Your task to perform on an android device: turn on the 24-hour format for clock Image 0: 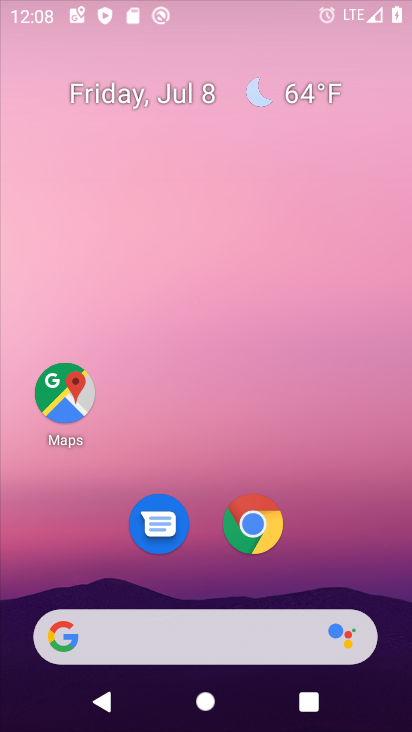
Step 0: drag from (330, 536) to (324, 23)
Your task to perform on an android device: turn on the 24-hour format for clock Image 1: 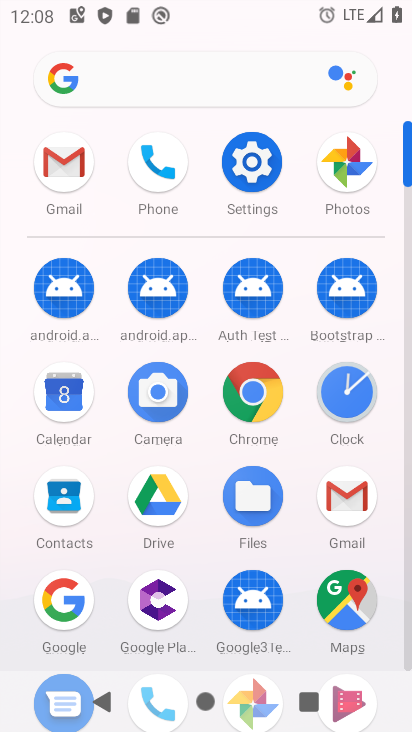
Step 1: click (330, 386)
Your task to perform on an android device: turn on the 24-hour format for clock Image 2: 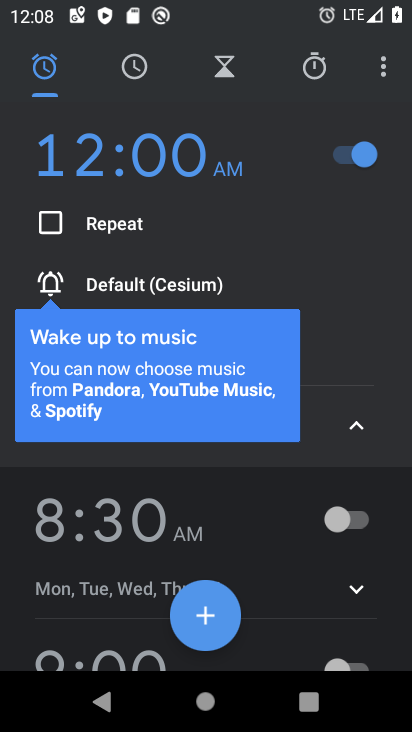
Step 2: click (381, 74)
Your task to perform on an android device: turn on the 24-hour format for clock Image 3: 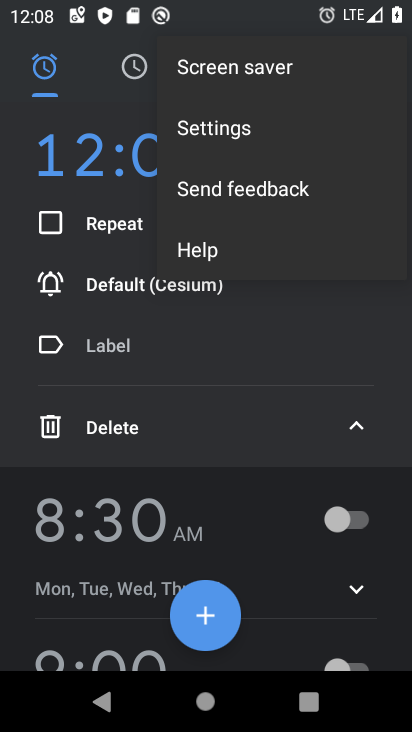
Step 3: click (243, 128)
Your task to perform on an android device: turn on the 24-hour format for clock Image 4: 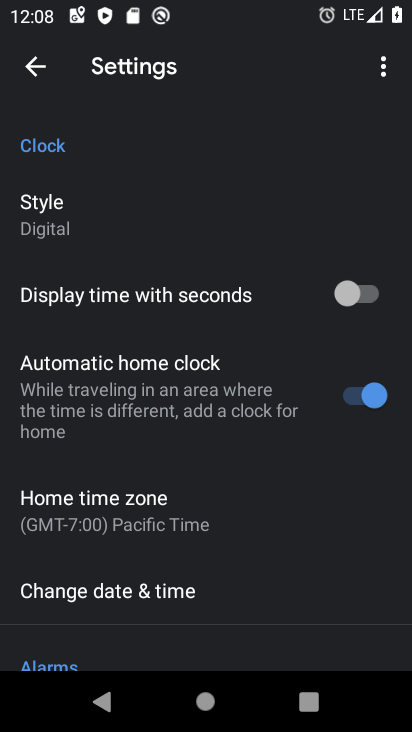
Step 4: click (244, 590)
Your task to perform on an android device: turn on the 24-hour format for clock Image 5: 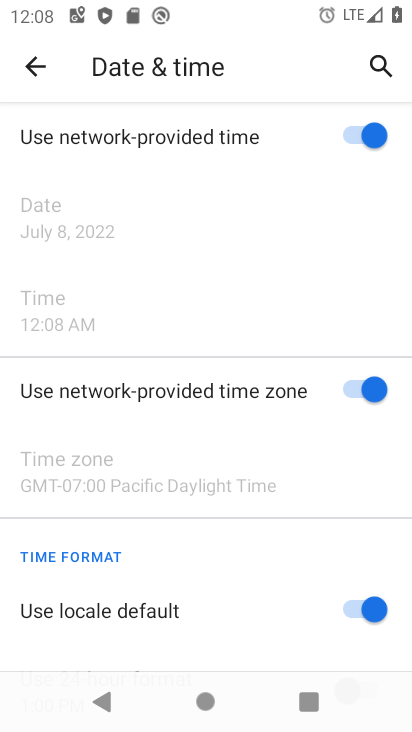
Step 5: drag from (332, 408) to (327, 215)
Your task to perform on an android device: turn on the 24-hour format for clock Image 6: 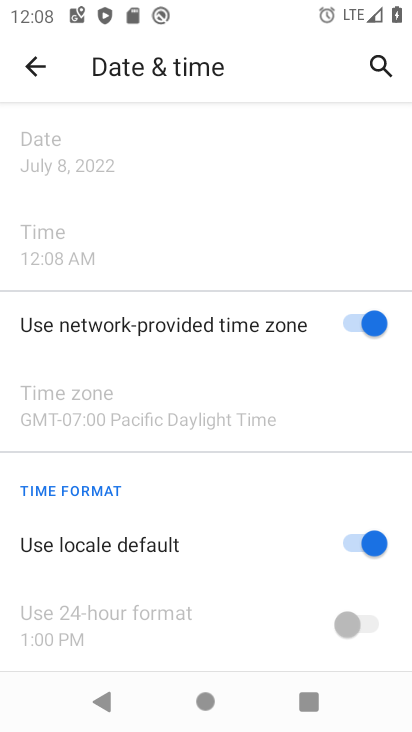
Step 6: click (354, 531)
Your task to perform on an android device: turn on the 24-hour format for clock Image 7: 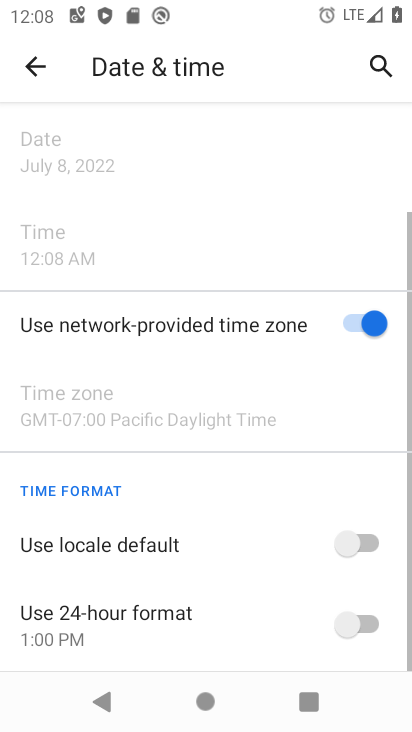
Step 7: click (370, 614)
Your task to perform on an android device: turn on the 24-hour format for clock Image 8: 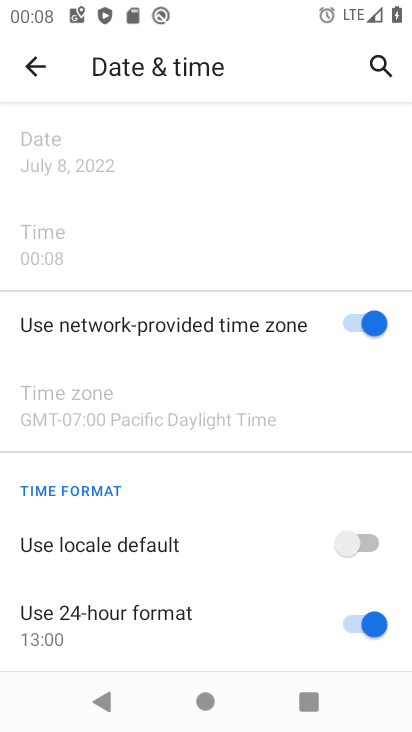
Step 8: task complete